Your task to perform on an android device: Open the web browser Image 0: 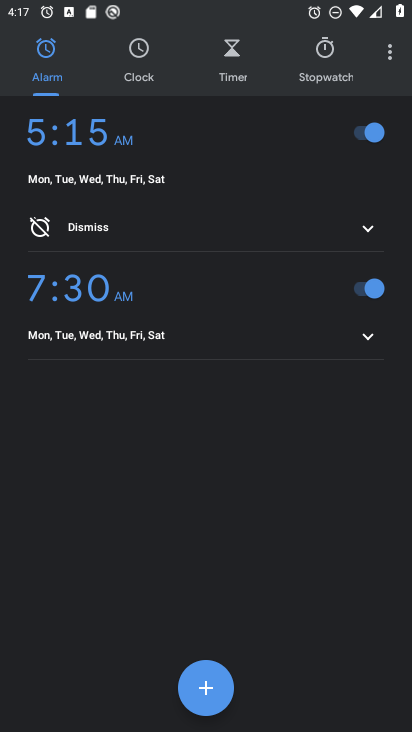
Step 0: press home button
Your task to perform on an android device: Open the web browser Image 1: 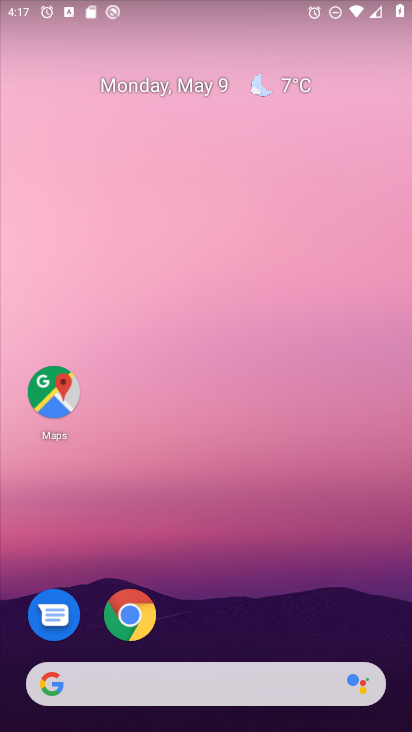
Step 1: drag from (383, 620) to (303, 88)
Your task to perform on an android device: Open the web browser Image 2: 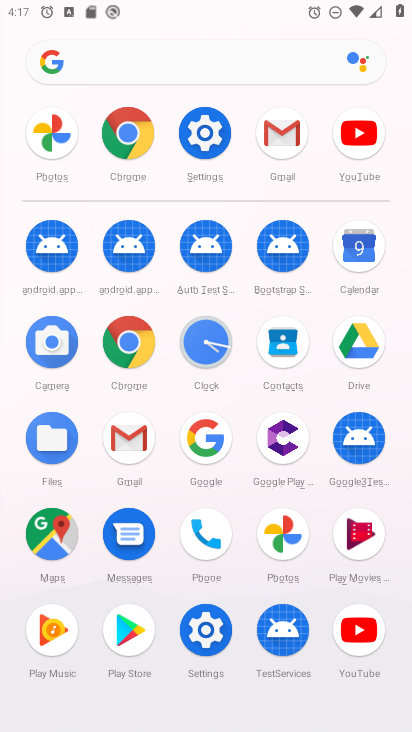
Step 2: click (132, 340)
Your task to perform on an android device: Open the web browser Image 3: 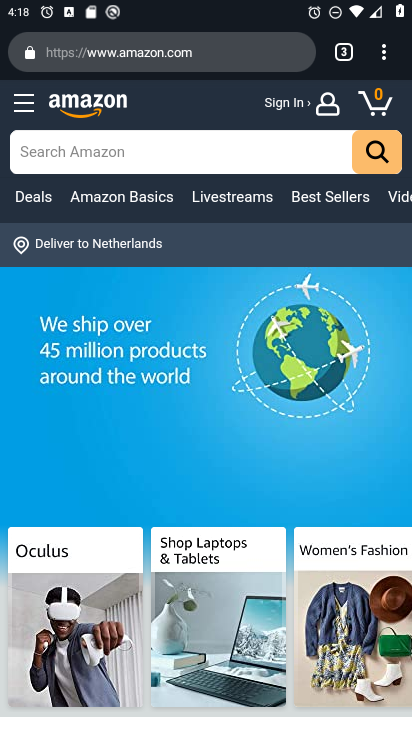
Step 3: task complete